Your task to perform on an android device: change notifications settings Image 0: 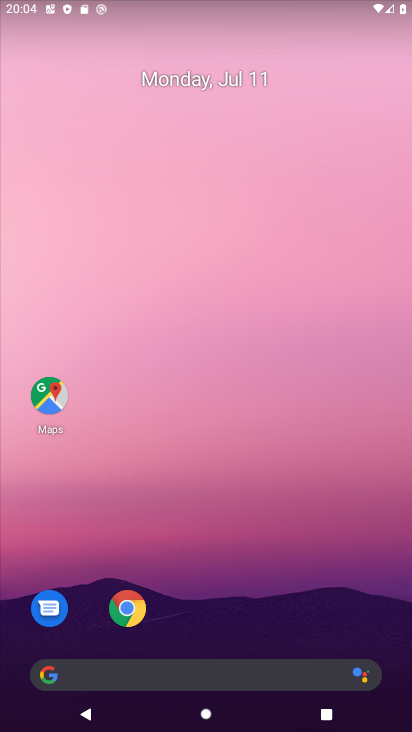
Step 0: drag from (264, 587) to (218, 157)
Your task to perform on an android device: change notifications settings Image 1: 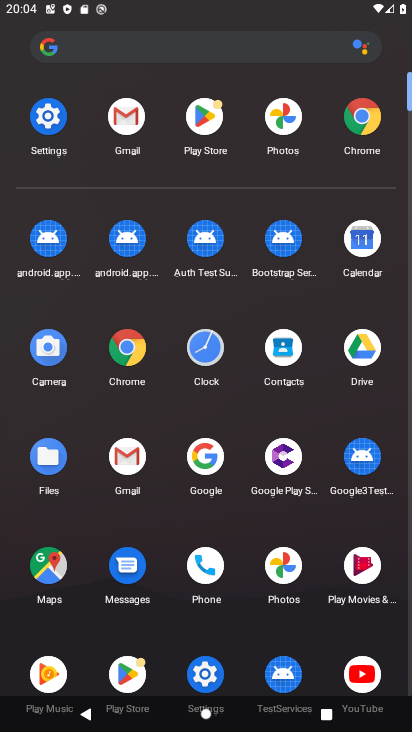
Step 1: click (37, 139)
Your task to perform on an android device: change notifications settings Image 2: 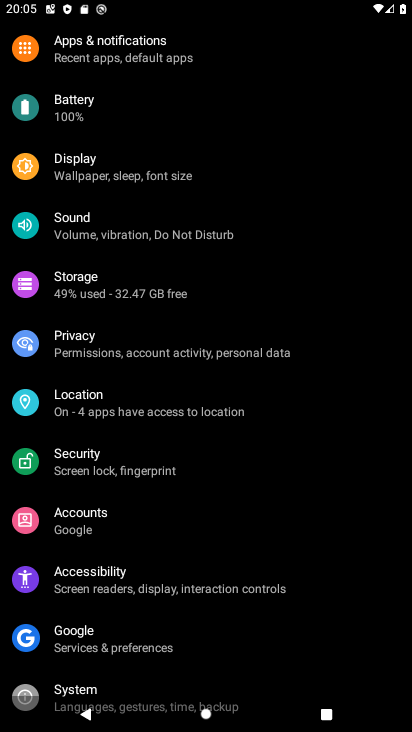
Step 2: click (133, 63)
Your task to perform on an android device: change notifications settings Image 3: 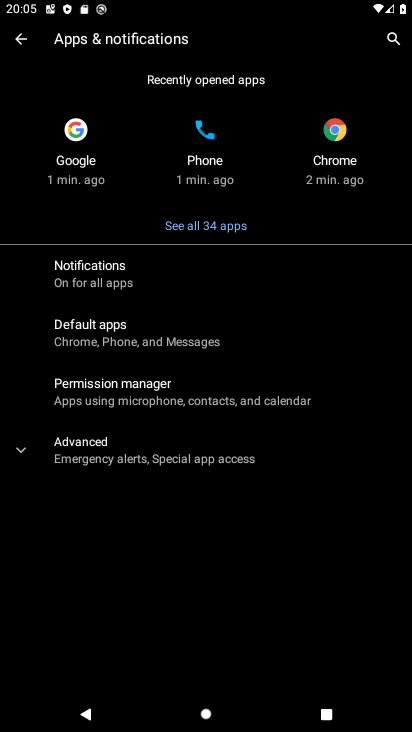
Step 3: task complete